Your task to perform on an android device: Go to Google Image 0: 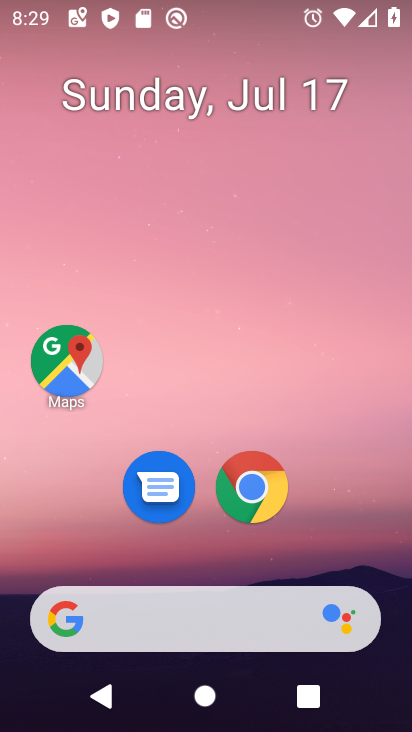
Step 0: drag from (156, 573) to (254, 18)
Your task to perform on an android device: Go to Google Image 1: 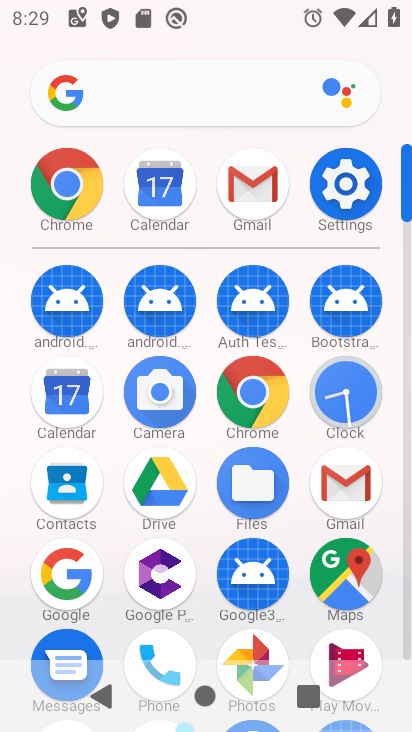
Step 1: click (65, 585)
Your task to perform on an android device: Go to Google Image 2: 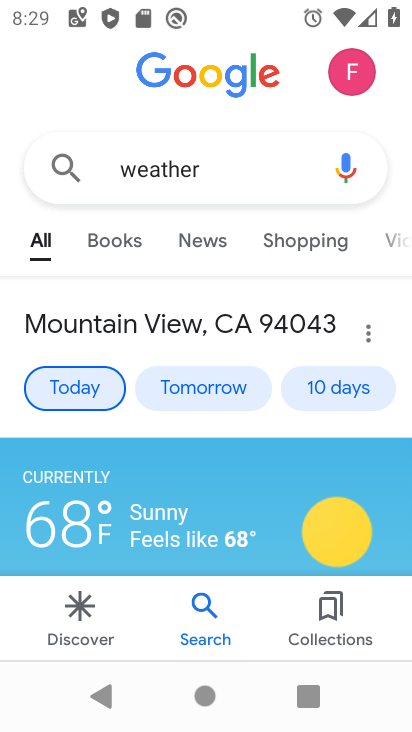
Step 2: task complete